Your task to perform on an android device: add a contact Image 0: 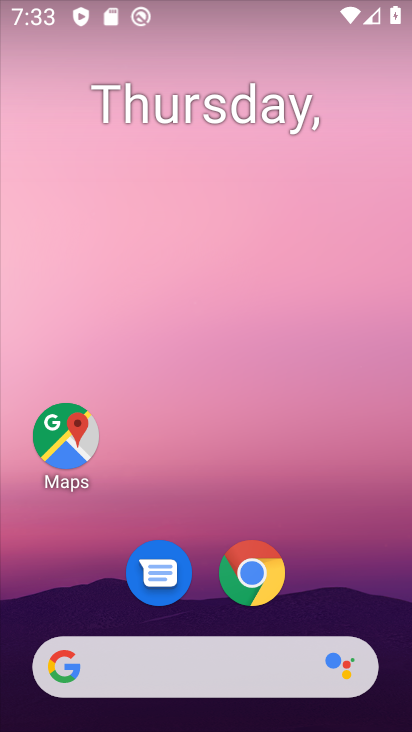
Step 0: drag from (345, 550) to (353, 62)
Your task to perform on an android device: add a contact Image 1: 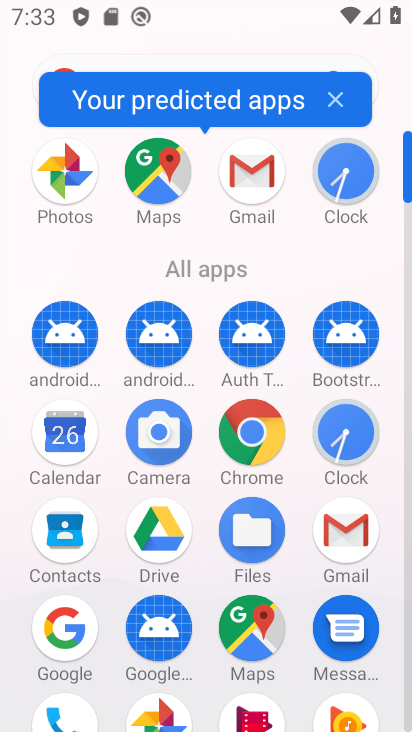
Step 1: click (77, 539)
Your task to perform on an android device: add a contact Image 2: 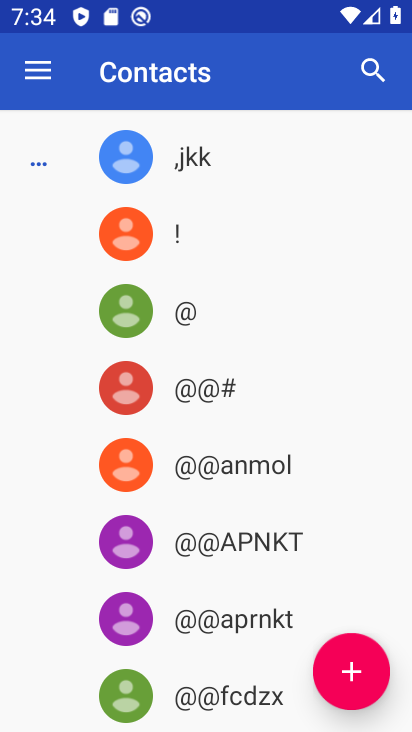
Step 2: click (358, 674)
Your task to perform on an android device: add a contact Image 3: 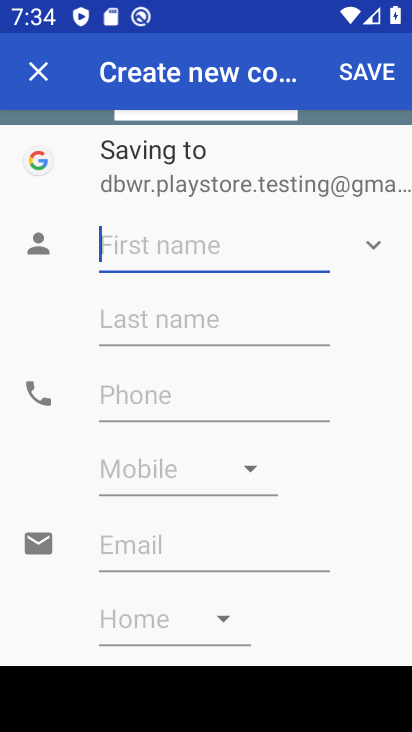
Step 3: type "virana"
Your task to perform on an android device: add a contact Image 4: 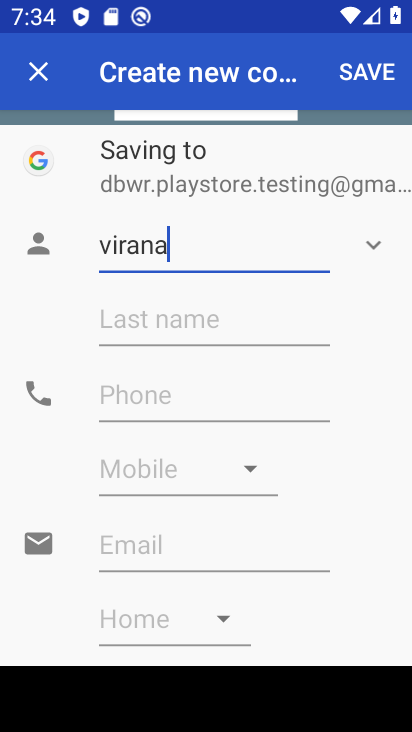
Step 4: click (349, 67)
Your task to perform on an android device: add a contact Image 5: 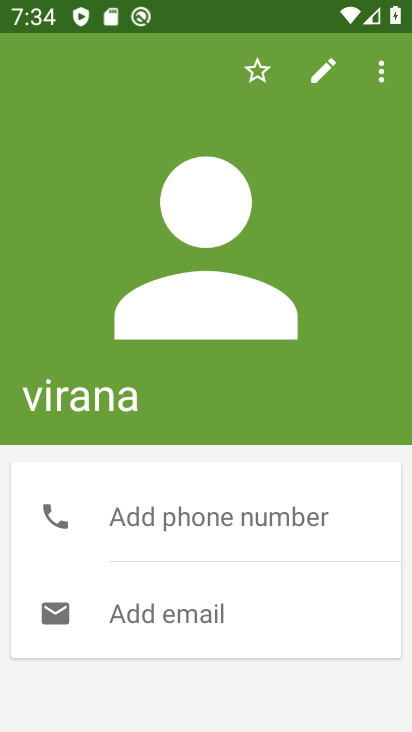
Step 5: task complete